Your task to perform on an android device: clear history in the chrome app Image 0: 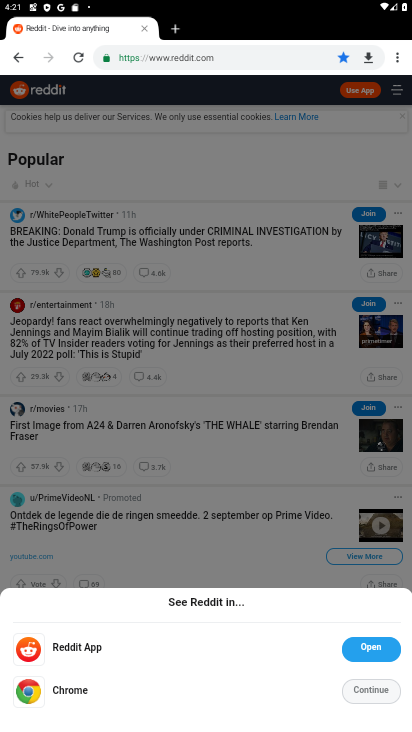
Step 0: click (396, 57)
Your task to perform on an android device: clear history in the chrome app Image 1: 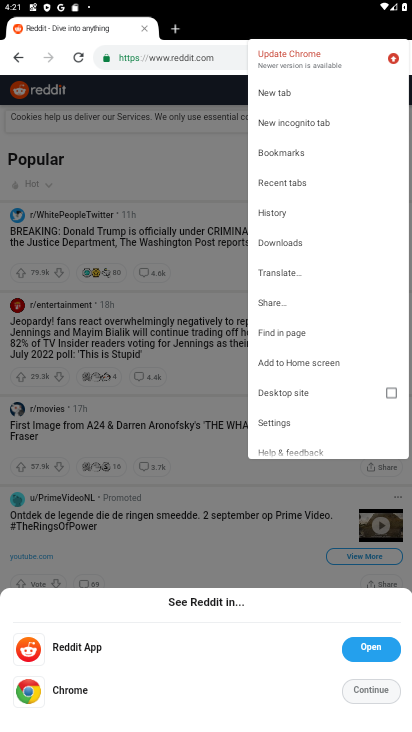
Step 1: click (298, 423)
Your task to perform on an android device: clear history in the chrome app Image 2: 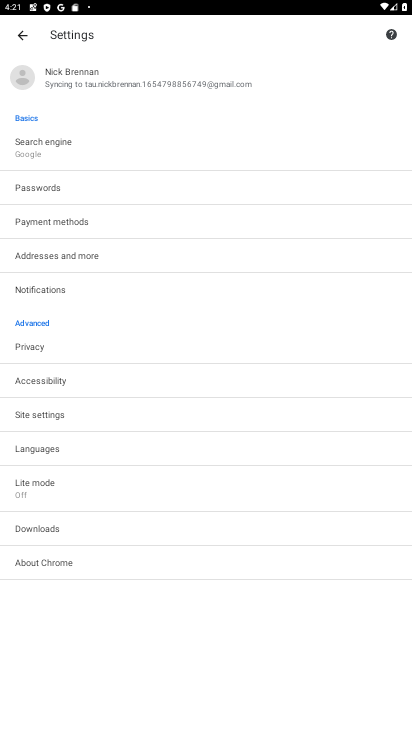
Step 2: click (18, 39)
Your task to perform on an android device: clear history in the chrome app Image 3: 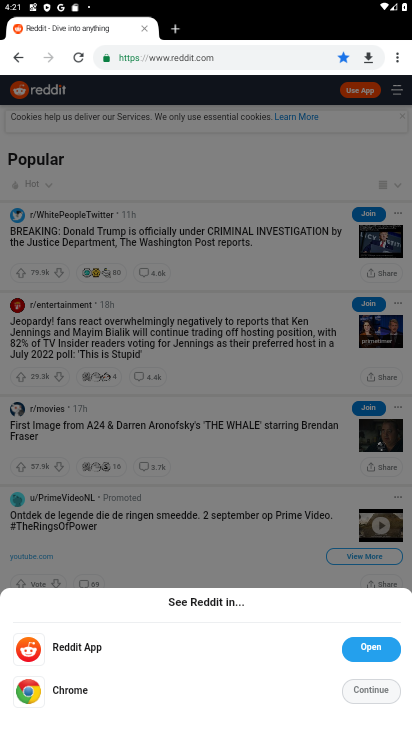
Step 3: click (396, 58)
Your task to perform on an android device: clear history in the chrome app Image 4: 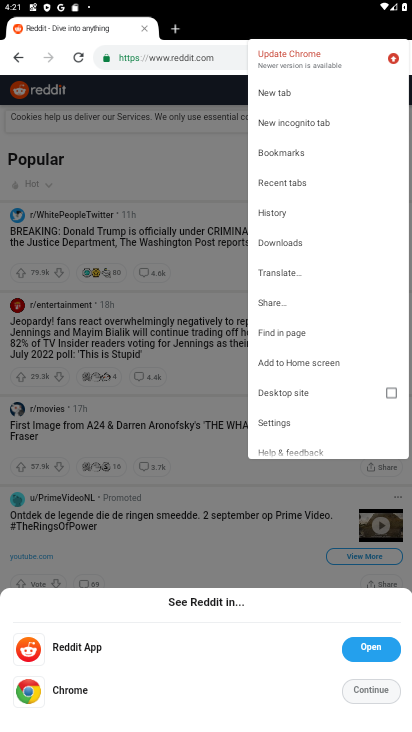
Step 4: click (288, 214)
Your task to perform on an android device: clear history in the chrome app Image 5: 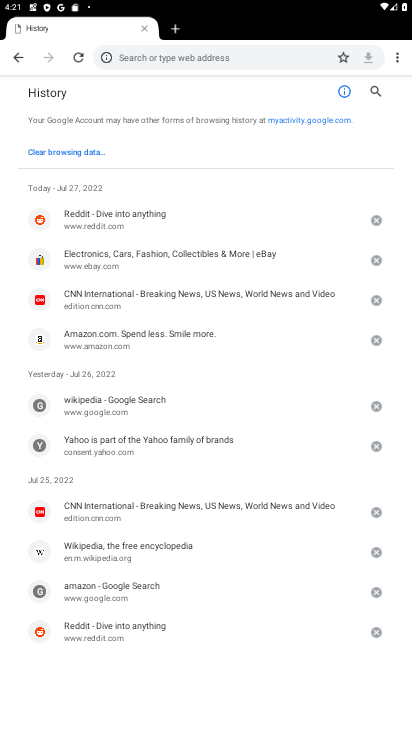
Step 5: click (95, 150)
Your task to perform on an android device: clear history in the chrome app Image 6: 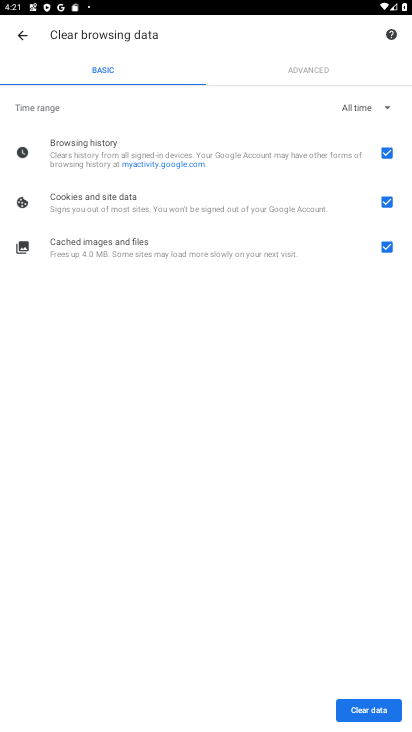
Step 6: click (386, 246)
Your task to perform on an android device: clear history in the chrome app Image 7: 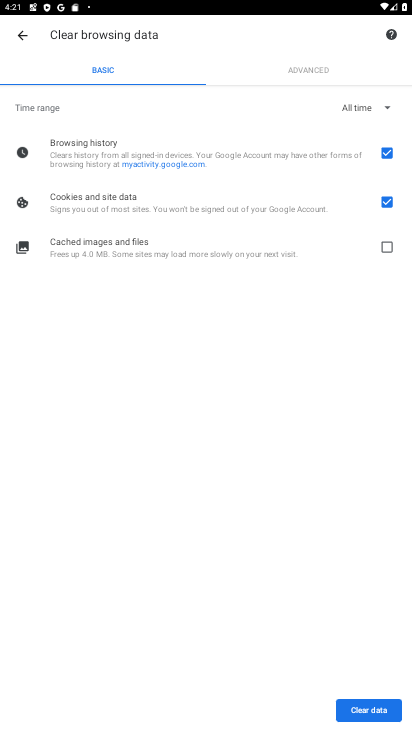
Step 7: click (382, 200)
Your task to perform on an android device: clear history in the chrome app Image 8: 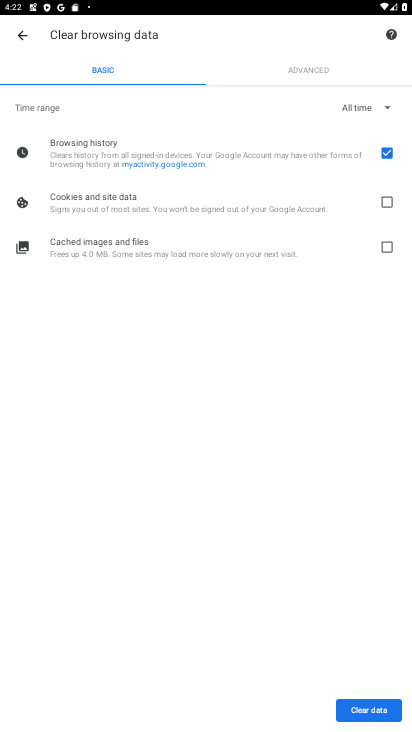
Step 8: click (379, 708)
Your task to perform on an android device: clear history in the chrome app Image 9: 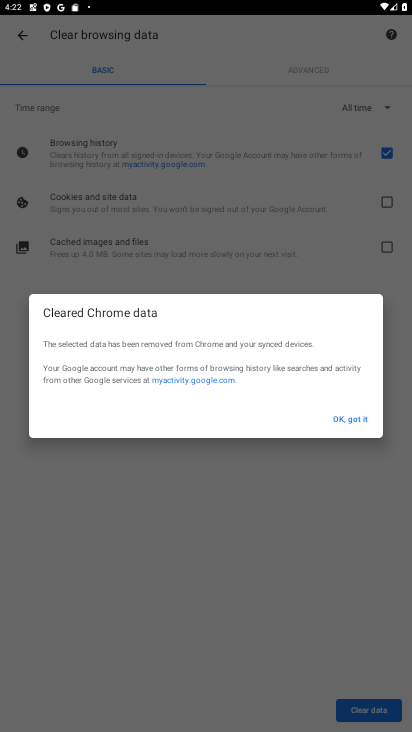
Step 9: click (349, 416)
Your task to perform on an android device: clear history in the chrome app Image 10: 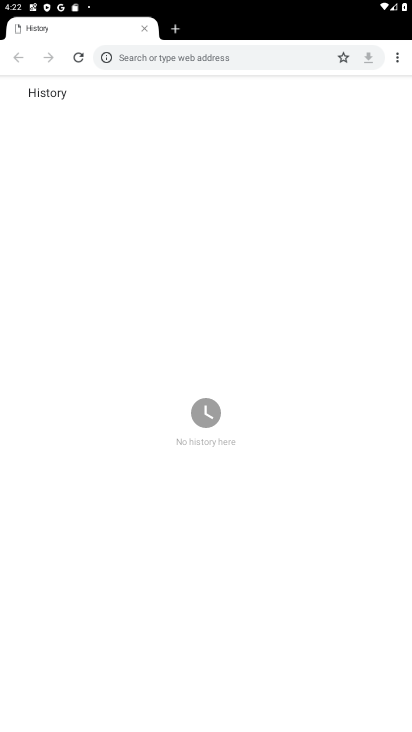
Step 10: task complete